Your task to perform on an android device: see tabs open on other devices in the chrome app Image 0: 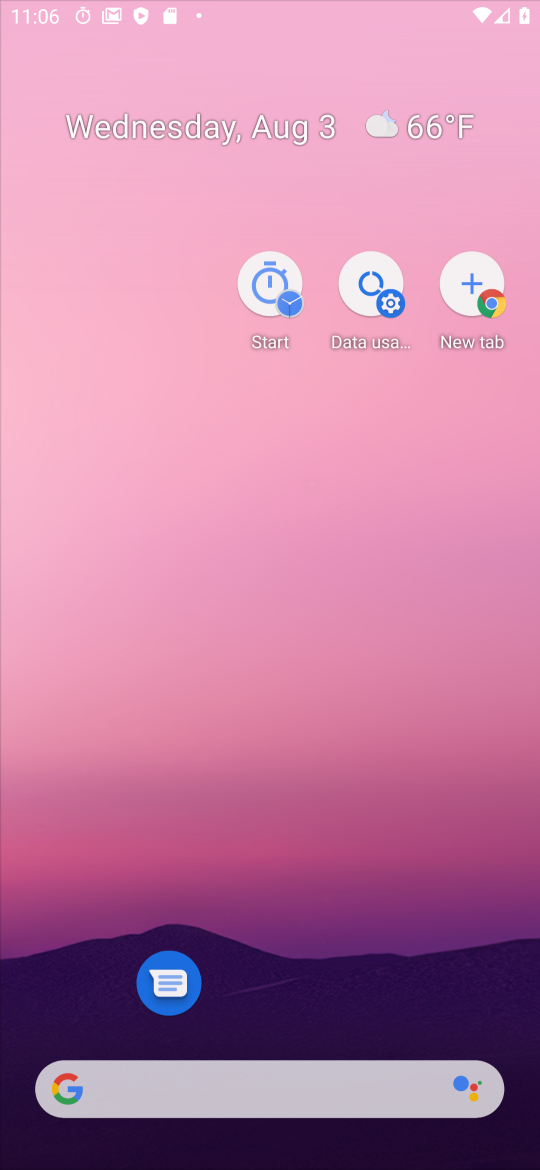
Step 0: press back button
Your task to perform on an android device: see tabs open on other devices in the chrome app Image 1: 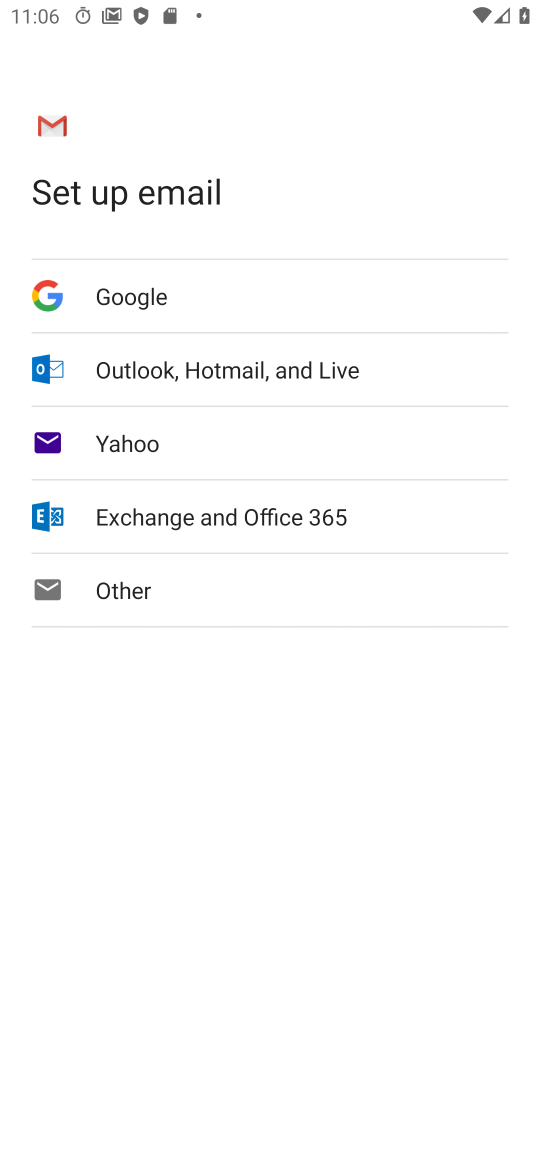
Step 1: press home button
Your task to perform on an android device: see tabs open on other devices in the chrome app Image 2: 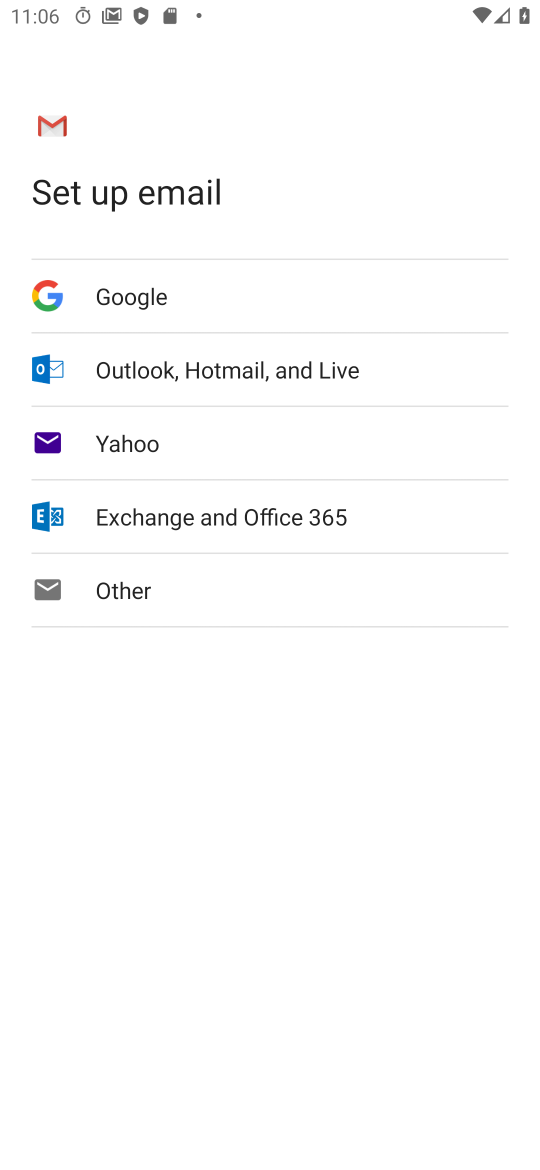
Step 2: click (248, 17)
Your task to perform on an android device: see tabs open on other devices in the chrome app Image 3: 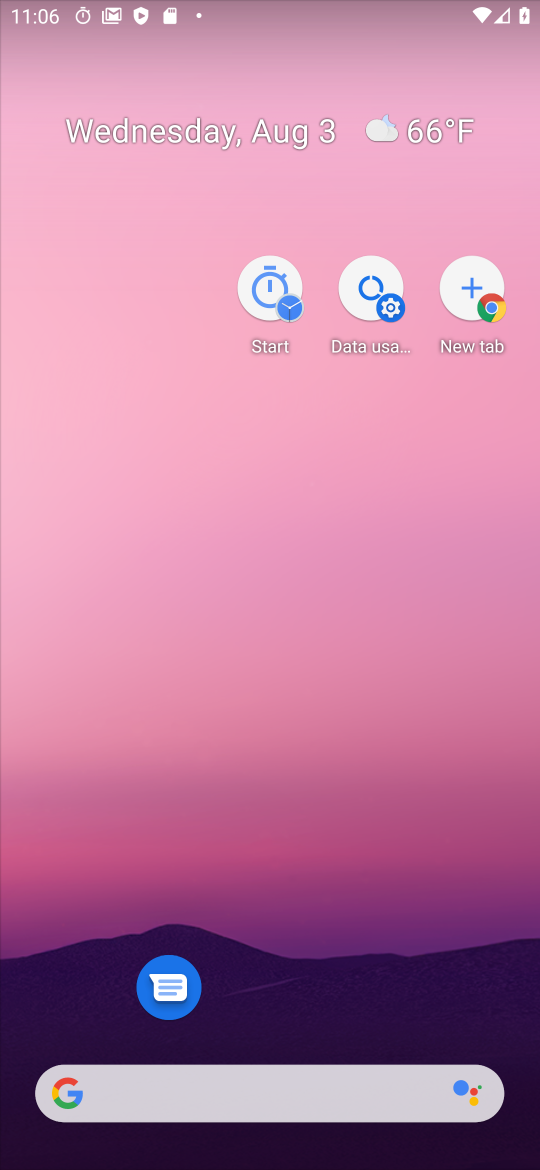
Step 3: press back button
Your task to perform on an android device: see tabs open on other devices in the chrome app Image 4: 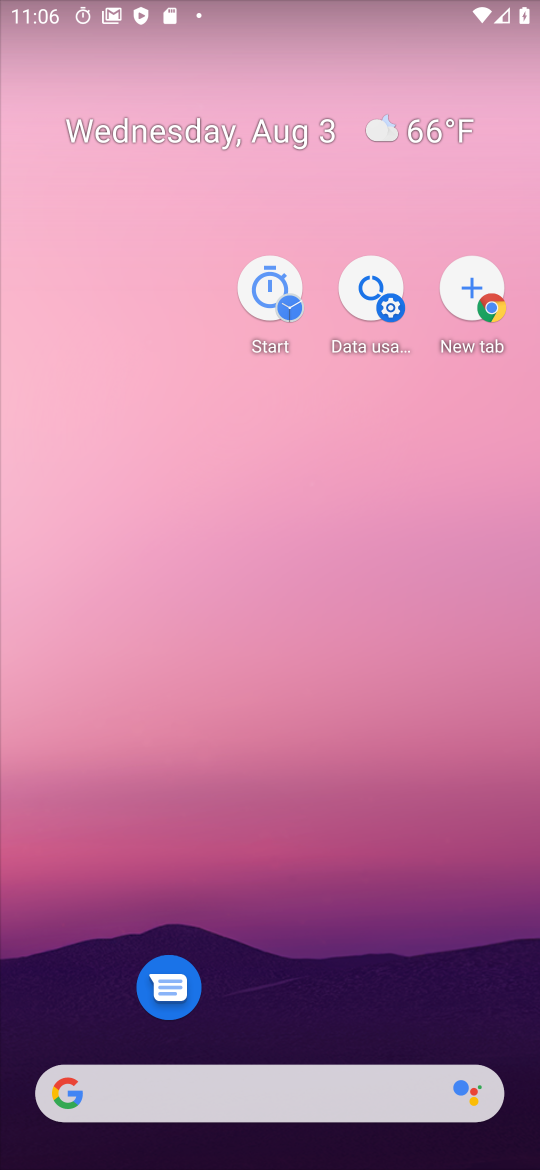
Step 4: drag from (177, 146) to (278, 219)
Your task to perform on an android device: see tabs open on other devices in the chrome app Image 5: 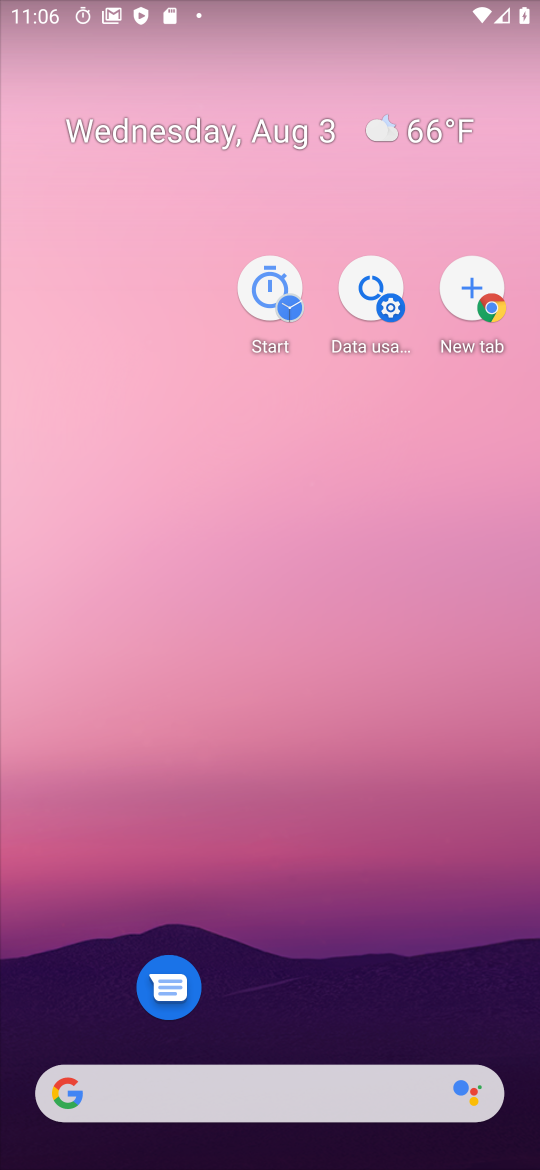
Step 5: drag from (200, 988) to (94, 383)
Your task to perform on an android device: see tabs open on other devices in the chrome app Image 6: 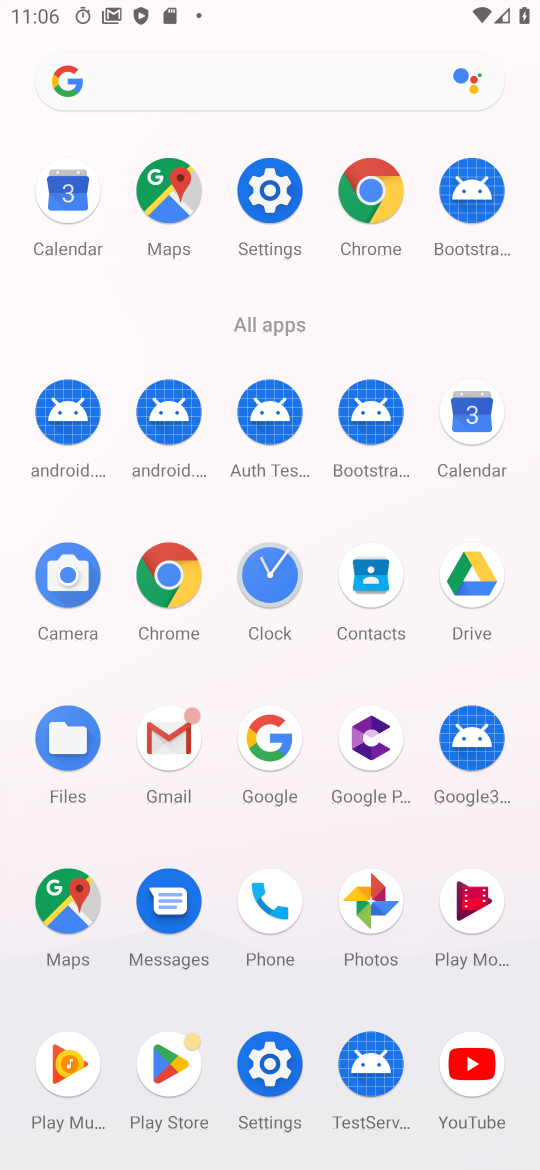
Step 6: click (367, 207)
Your task to perform on an android device: see tabs open on other devices in the chrome app Image 7: 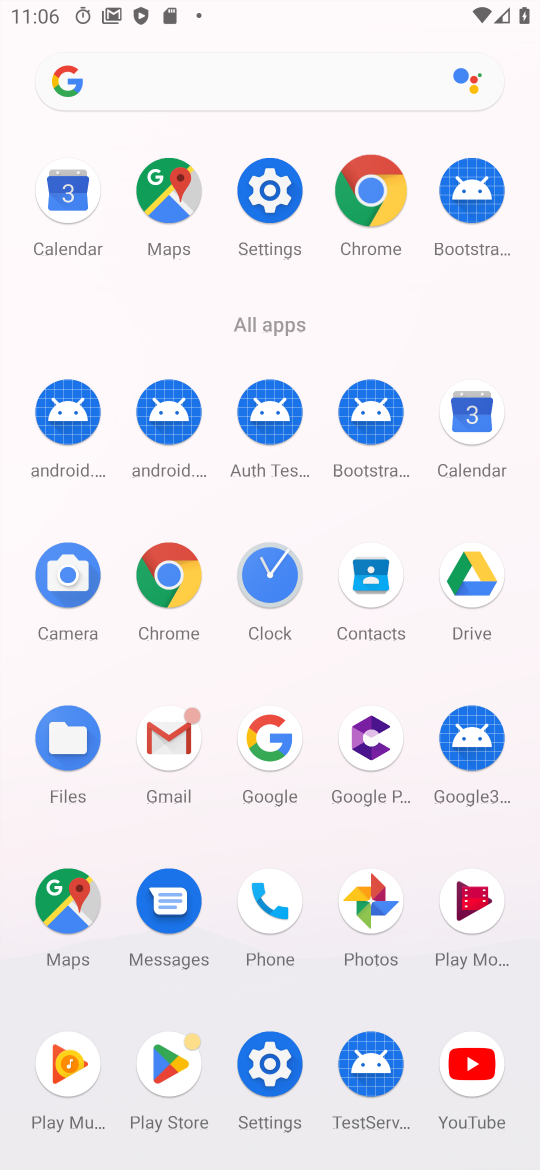
Step 7: click (363, 206)
Your task to perform on an android device: see tabs open on other devices in the chrome app Image 8: 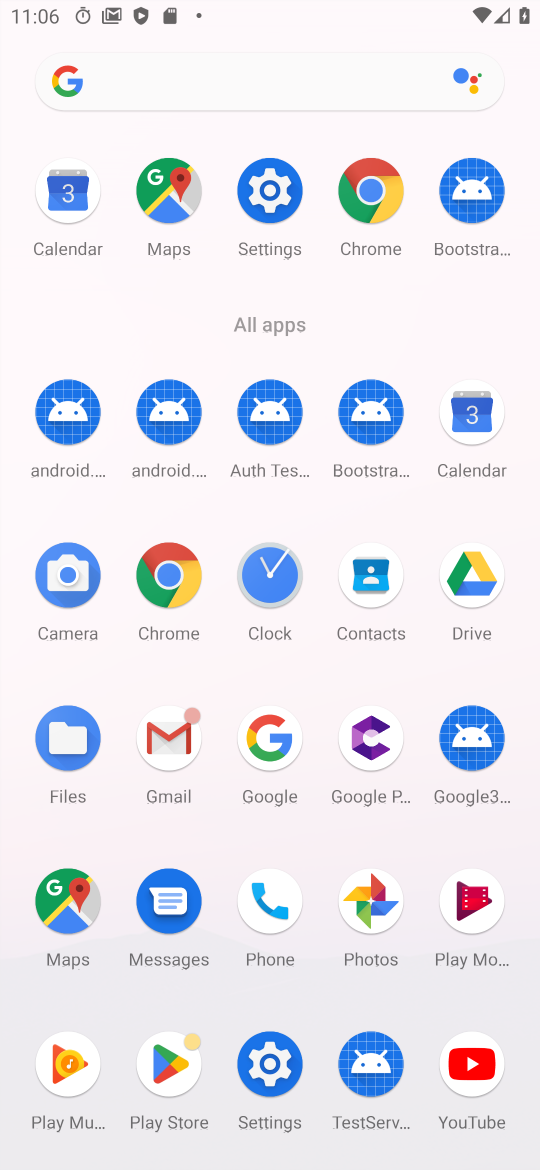
Step 8: click (372, 213)
Your task to perform on an android device: see tabs open on other devices in the chrome app Image 9: 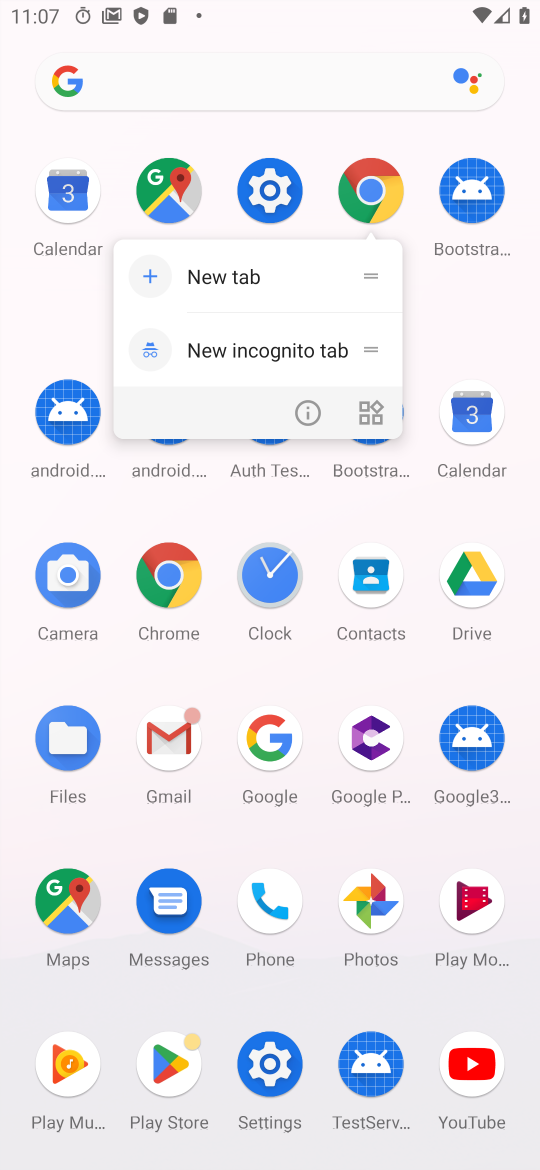
Step 9: click (213, 281)
Your task to perform on an android device: see tabs open on other devices in the chrome app Image 10: 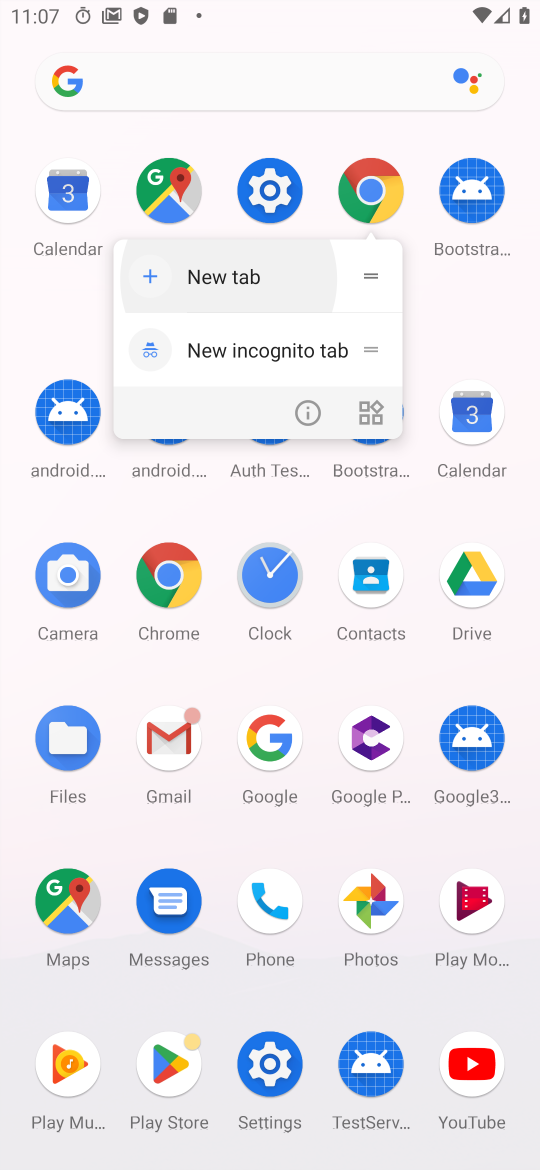
Step 10: click (213, 281)
Your task to perform on an android device: see tabs open on other devices in the chrome app Image 11: 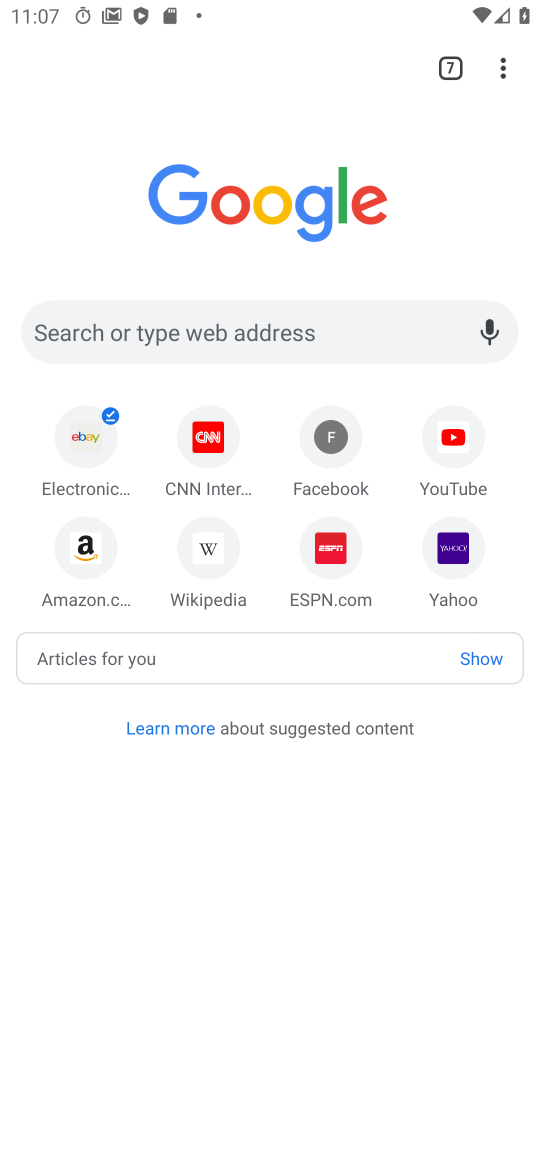
Step 11: click (496, 61)
Your task to perform on an android device: see tabs open on other devices in the chrome app Image 12: 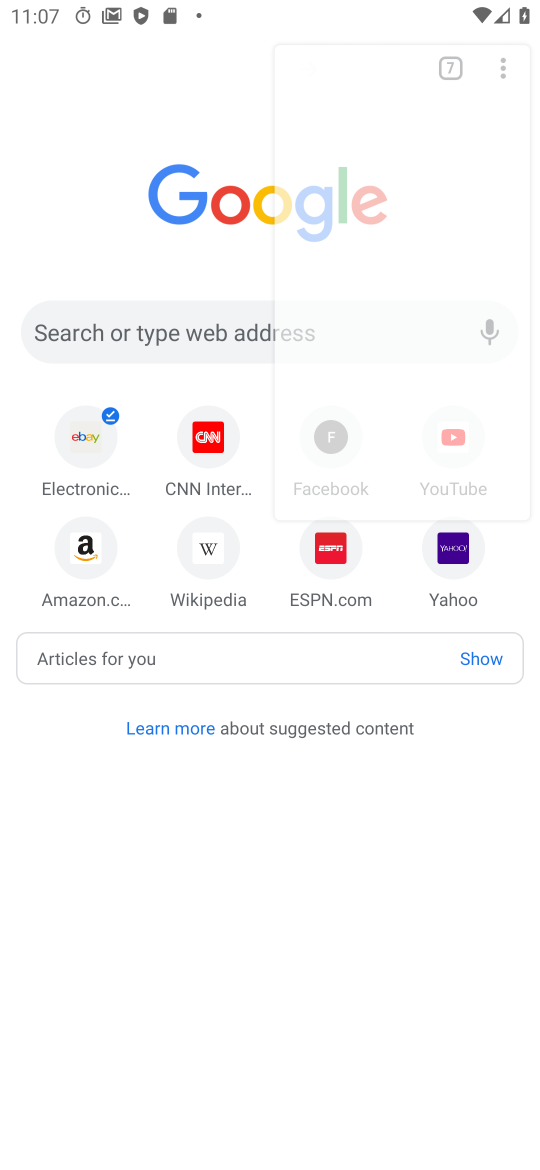
Step 12: click (501, 71)
Your task to perform on an android device: see tabs open on other devices in the chrome app Image 13: 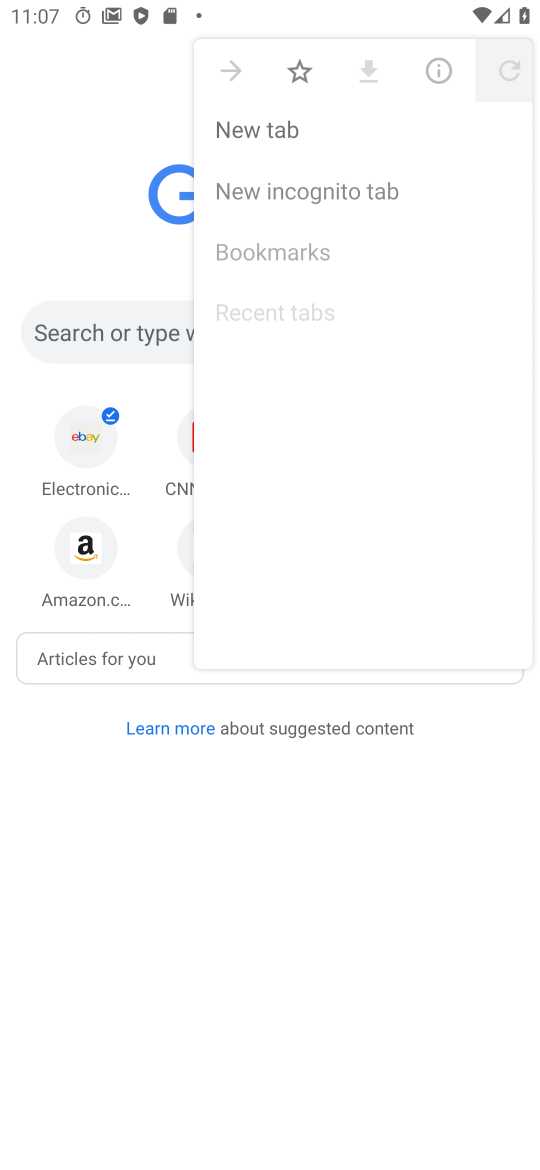
Step 13: click (501, 71)
Your task to perform on an android device: see tabs open on other devices in the chrome app Image 14: 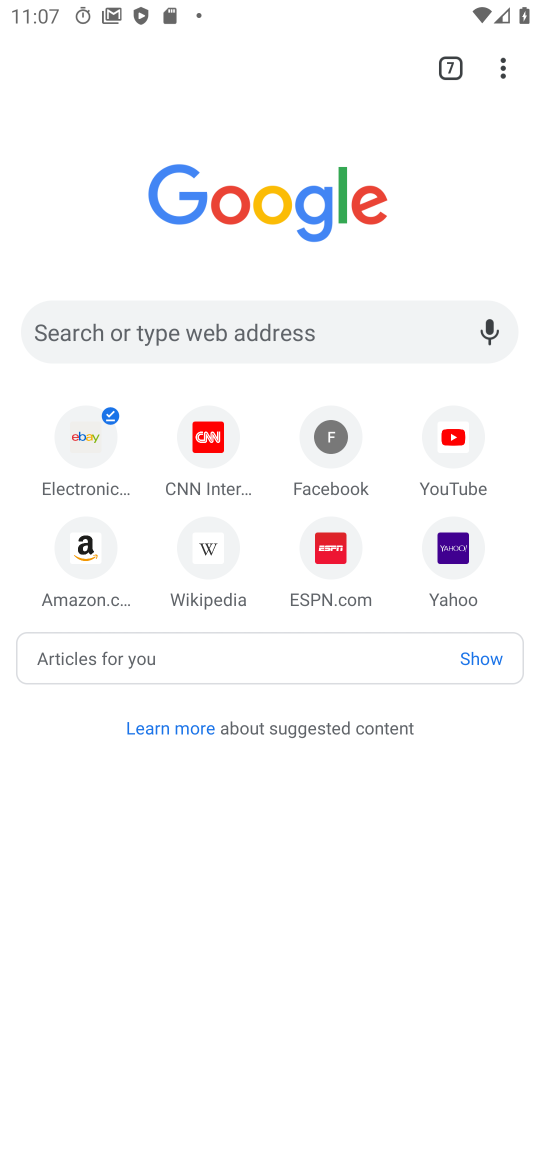
Step 14: click (488, 87)
Your task to perform on an android device: see tabs open on other devices in the chrome app Image 15: 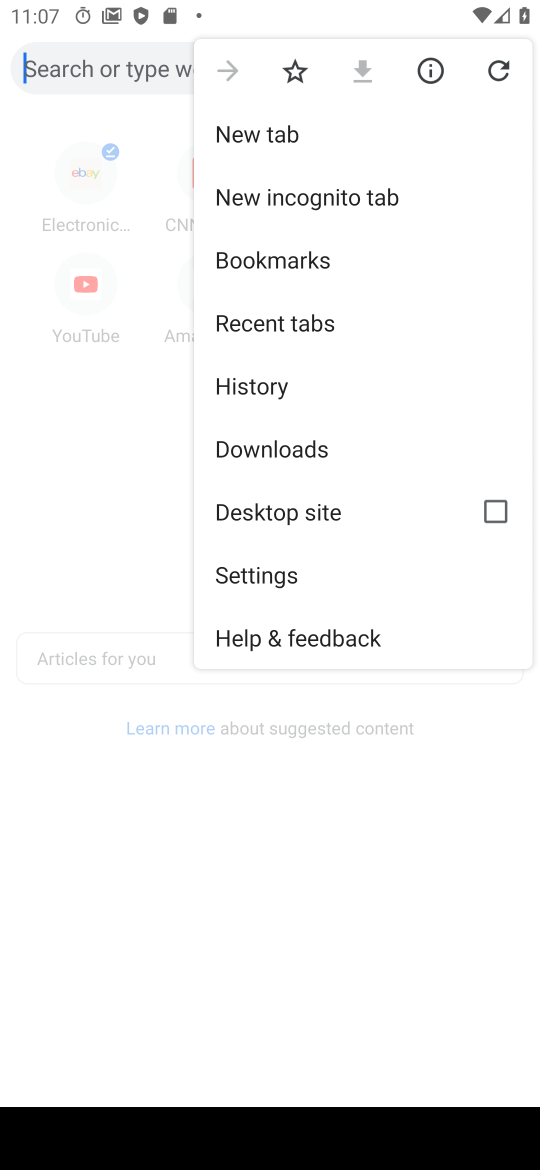
Step 15: click (258, 315)
Your task to perform on an android device: see tabs open on other devices in the chrome app Image 16: 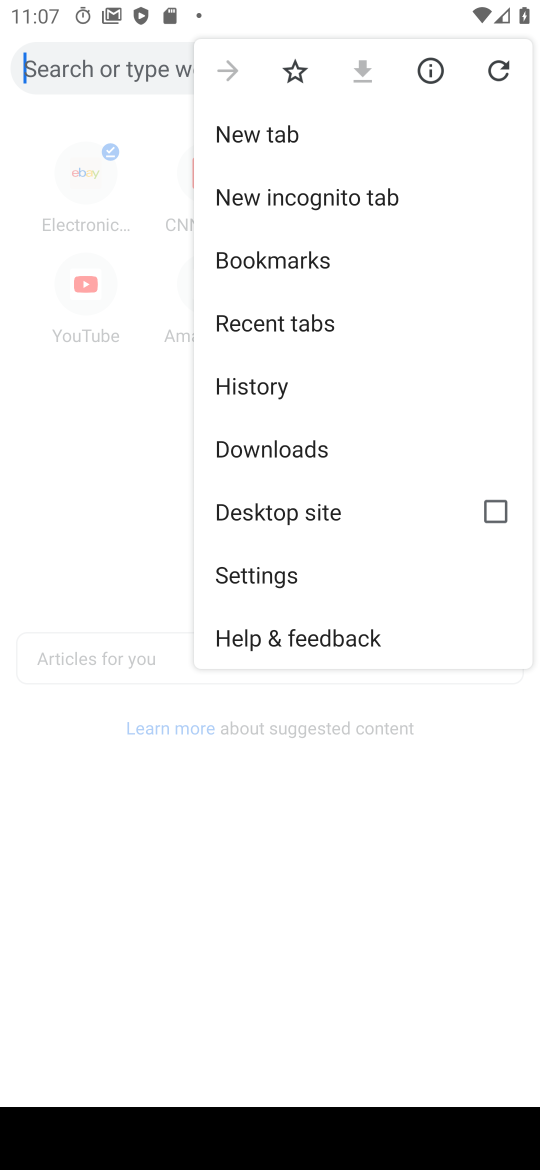
Step 16: click (262, 326)
Your task to perform on an android device: see tabs open on other devices in the chrome app Image 17: 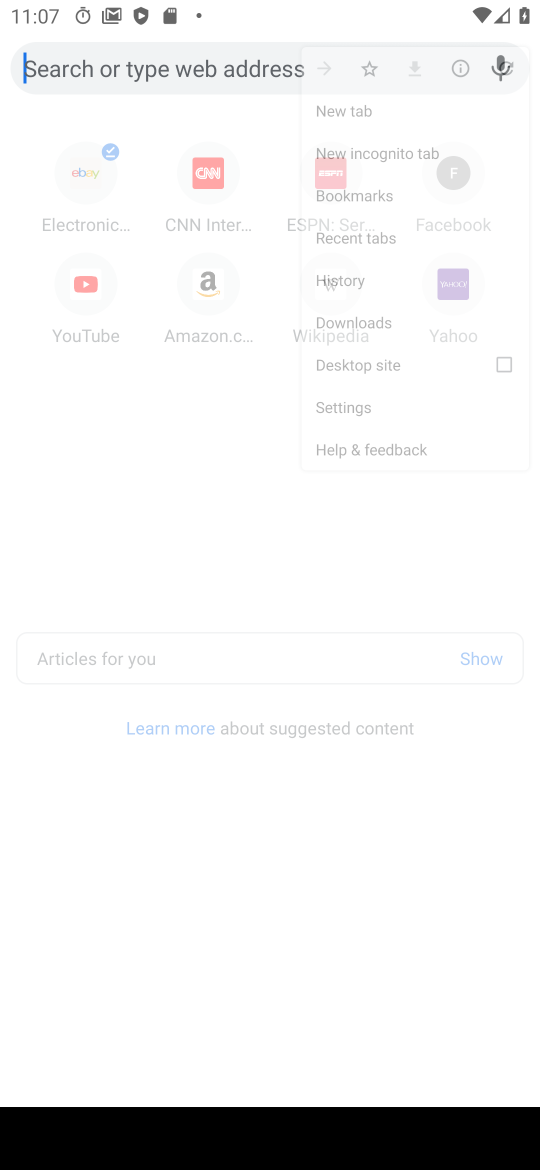
Step 17: click (262, 337)
Your task to perform on an android device: see tabs open on other devices in the chrome app Image 18: 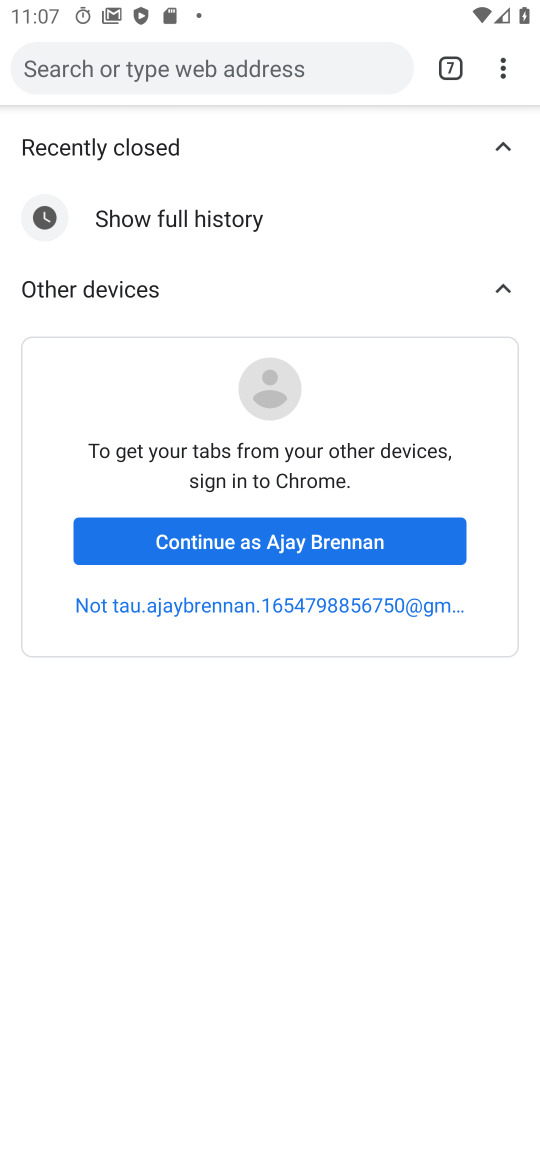
Step 18: task complete